Your task to perform on an android device: turn on javascript in the chrome app Image 0: 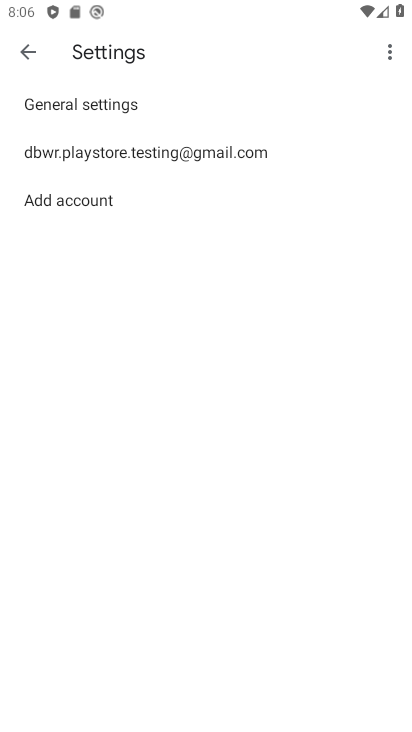
Step 0: press home button
Your task to perform on an android device: turn on javascript in the chrome app Image 1: 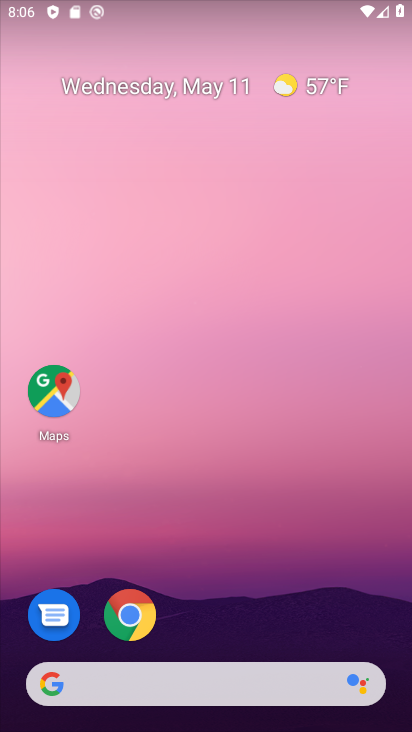
Step 1: click (126, 616)
Your task to perform on an android device: turn on javascript in the chrome app Image 2: 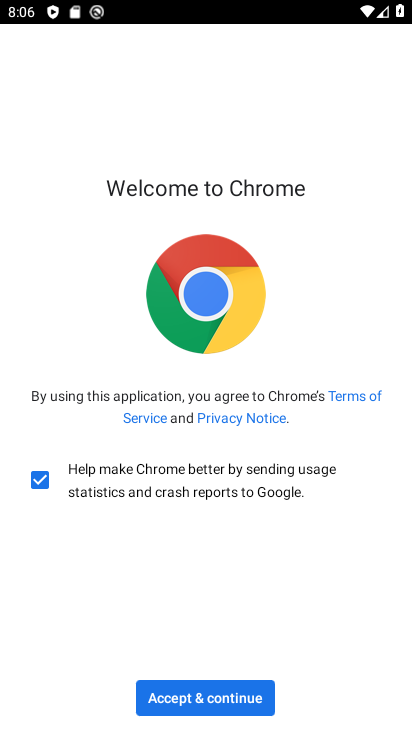
Step 2: click (180, 702)
Your task to perform on an android device: turn on javascript in the chrome app Image 3: 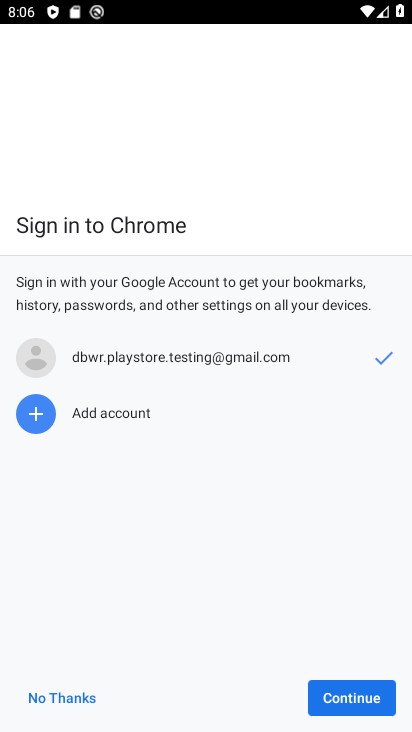
Step 3: click (351, 700)
Your task to perform on an android device: turn on javascript in the chrome app Image 4: 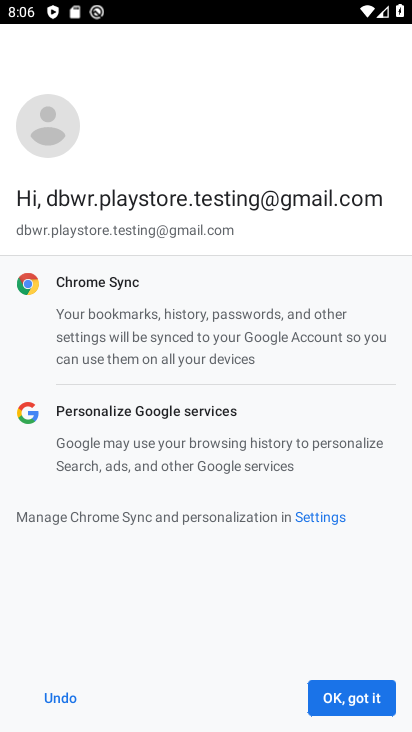
Step 4: click (351, 700)
Your task to perform on an android device: turn on javascript in the chrome app Image 5: 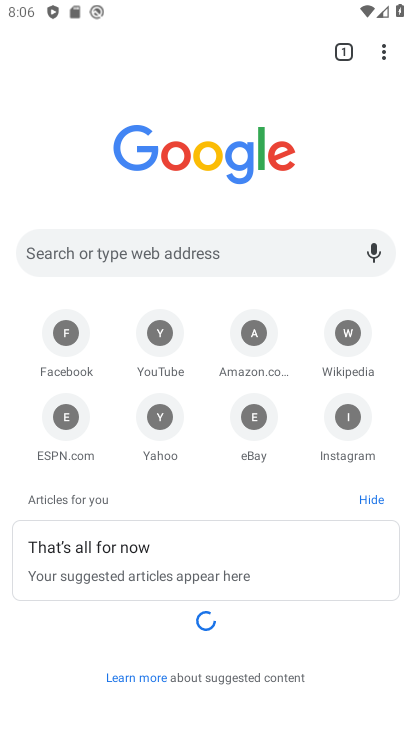
Step 5: drag from (385, 53) to (233, 445)
Your task to perform on an android device: turn on javascript in the chrome app Image 6: 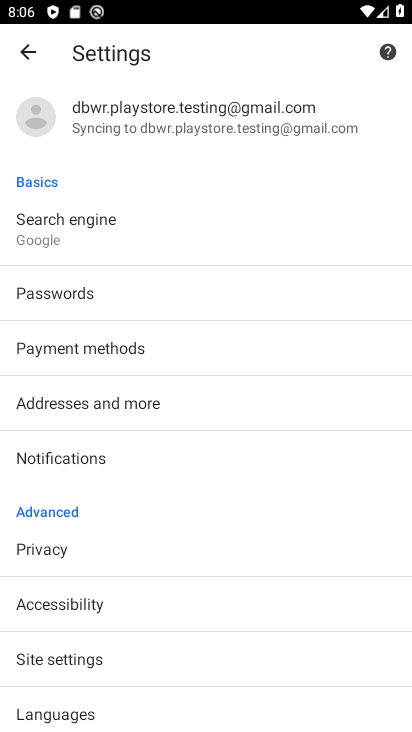
Step 6: drag from (162, 679) to (198, 254)
Your task to perform on an android device: turn on javascript in the chrome app Image 7: 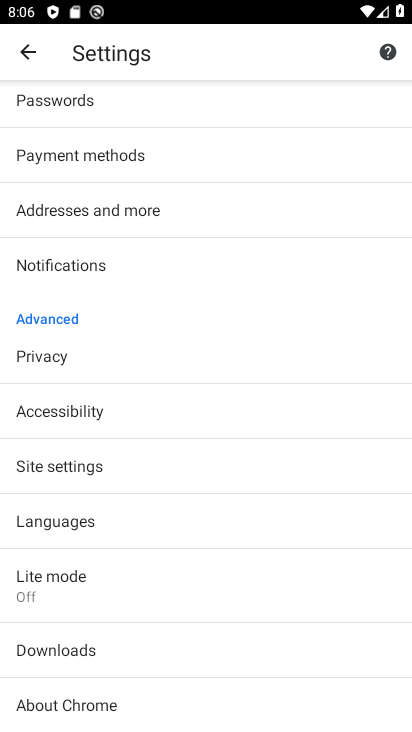
Step 7: click (135, 466)
Your task to perform on an android device: turn on javascript in the chrome app Image 8: 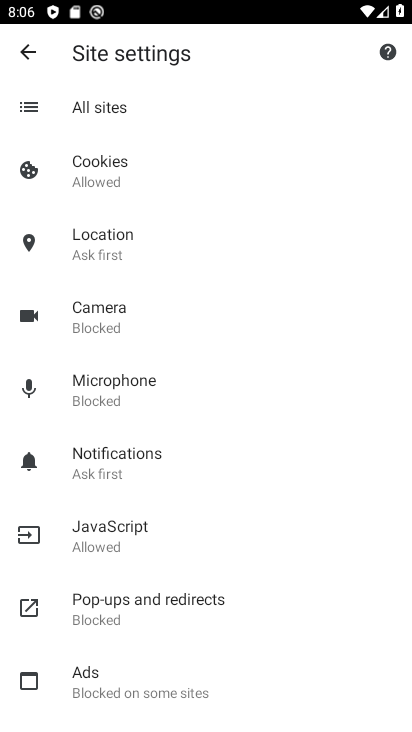
Step 8: click (127, 528)
Your task to perform on an android device: turn on javascript in the chrome app Image 9: 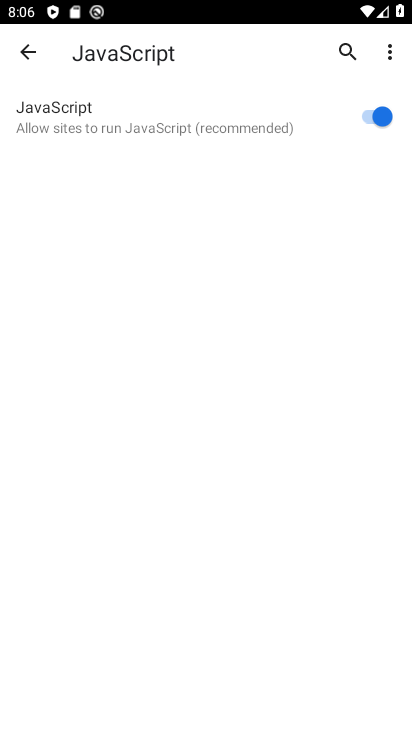
Step 9: click (374, 118)
Your task to perform on an android device: turn on javascript in the chrome app Image 10: 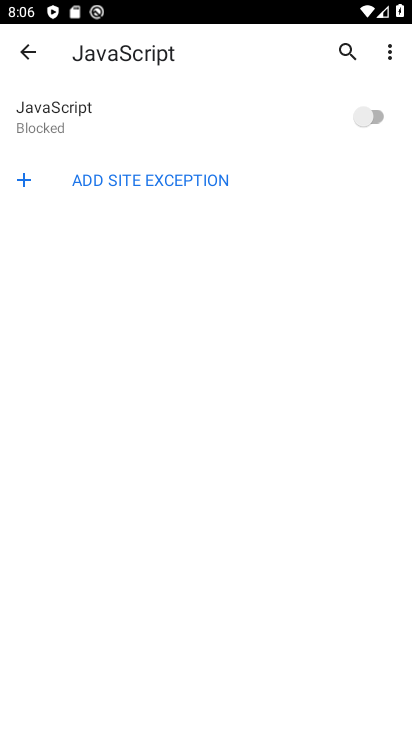
Step 10: task complete